Your task to perform on an android device: uninstall "Microsoft Excel" Image 0: 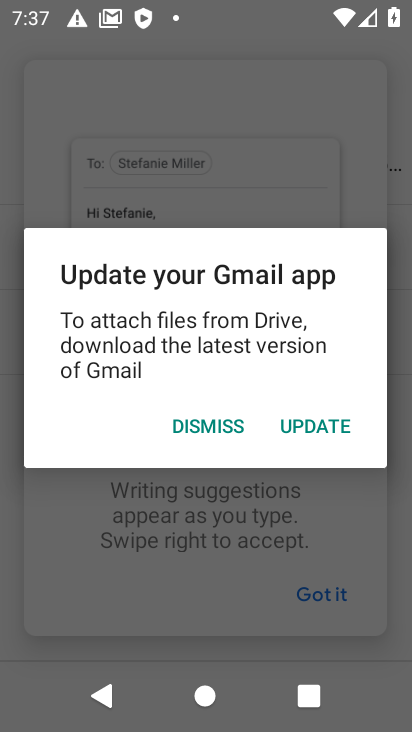
Step 0: press home button
Your task to perform on an android device: uninstall "Microsoft Excel" Image 1: 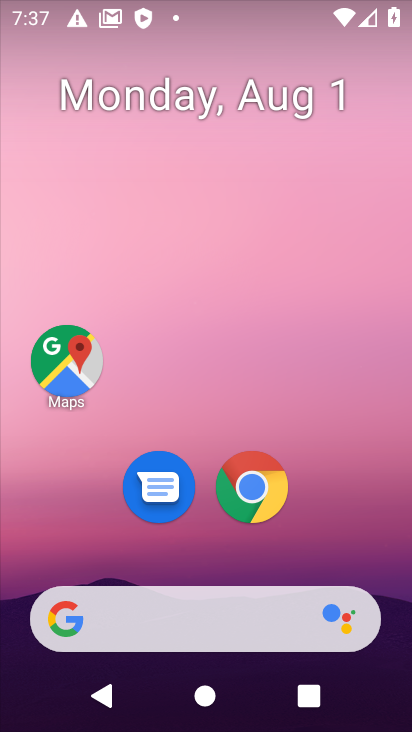
Step 1: drag from (370, 557) to (349, 97)
Your task to perform on an android device: uninstall "Microsoft Excel" Image 2: 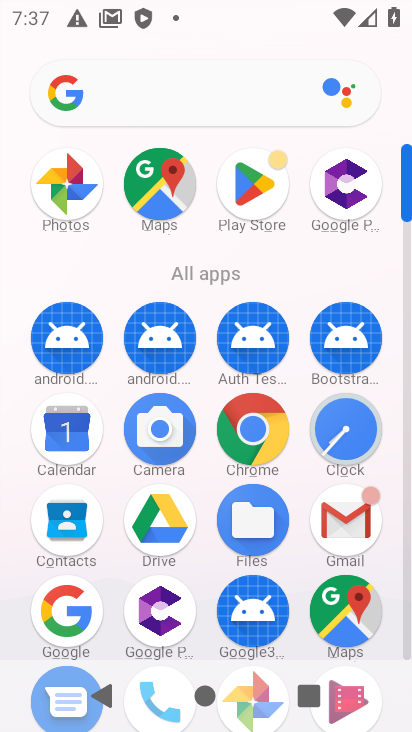
Step 2: click (258, 176)
Your task to perform on an android device: uninstall "Microsoft Excel" Image 3: 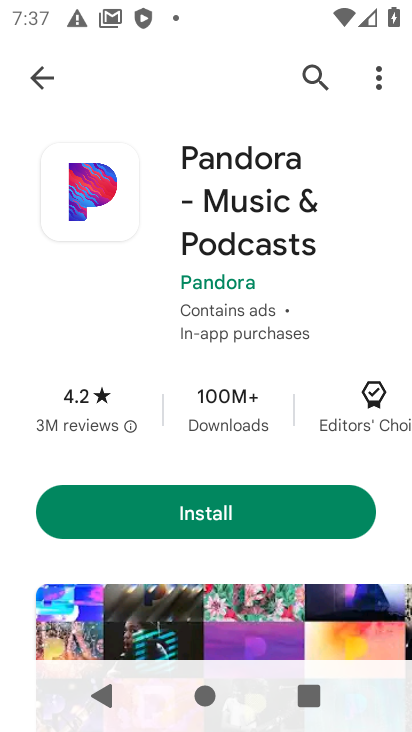
Step 3: click (309, 77)
Your task to perform on an android device: uninstall "Microsoft Excel" Image 4: 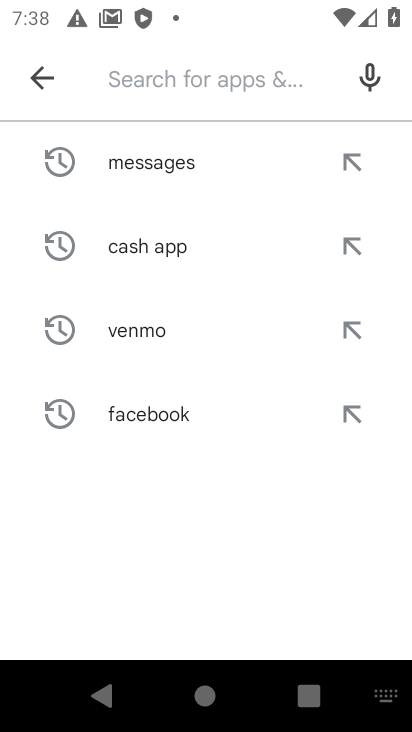
Step 4: type "microsoft excel"
Your task to perform on an android device: uninstall "Microsoft Excel" Image 5: 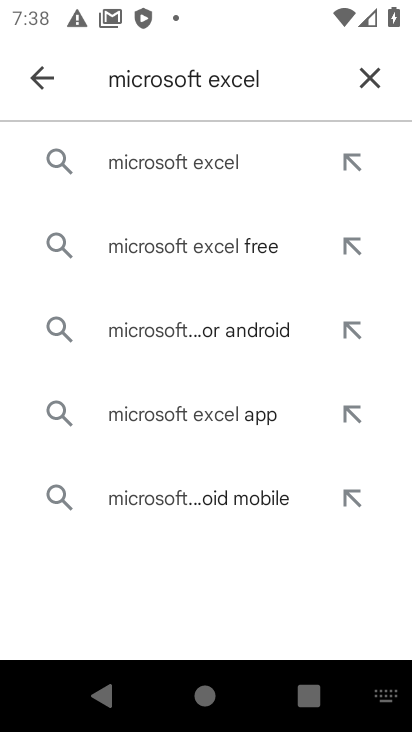
Step 5: click (258, 158)
Your task to perform on an android device: uninstall "Microsoft Excel" Image 6: 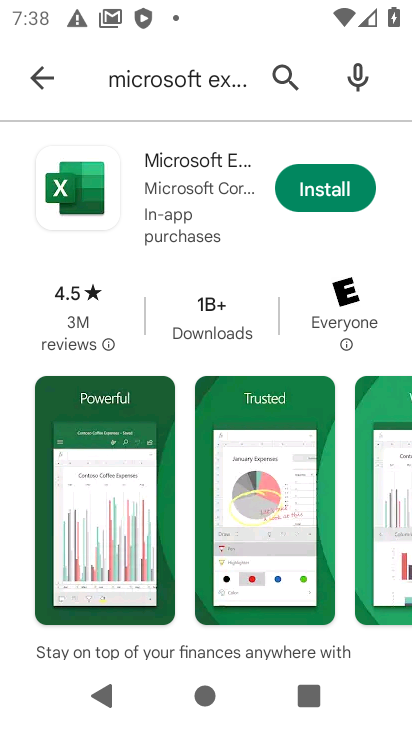
Step 6: task complete